Your task to perform on an android device: Do I have any events tomorrow? Image 0: 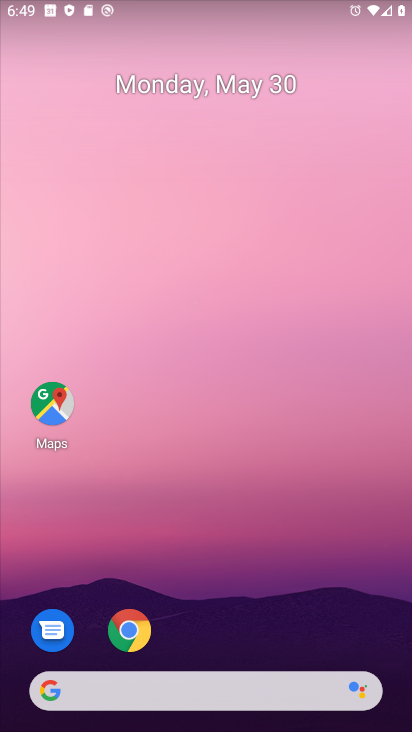
Step 0: drag from (361, 628) to (289, 2)
Your task to perform on an android device: Do I have any events tomorrow? Image 1: 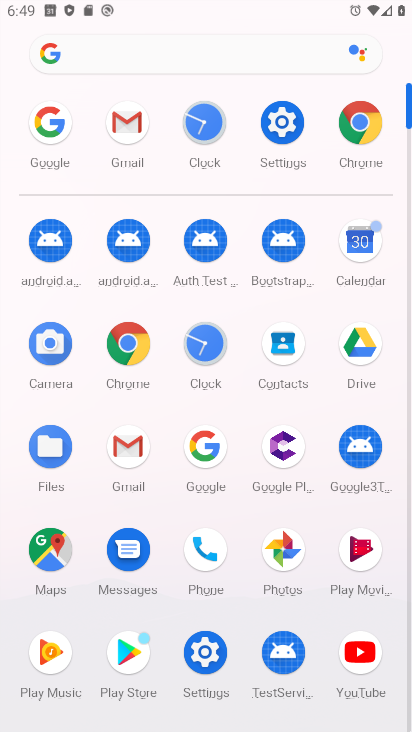
Step 1: click (355, 269)
Your task to perform on an android device: Do I have any events tomorrow? Image 2: 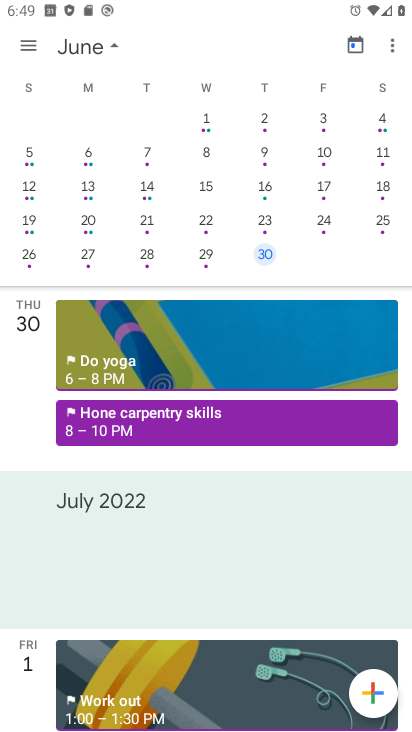
Step 2: drag from (77, 181) to (375, 169)
Your task to perform on an android device: Do I have any events tomorrow? Image 3: 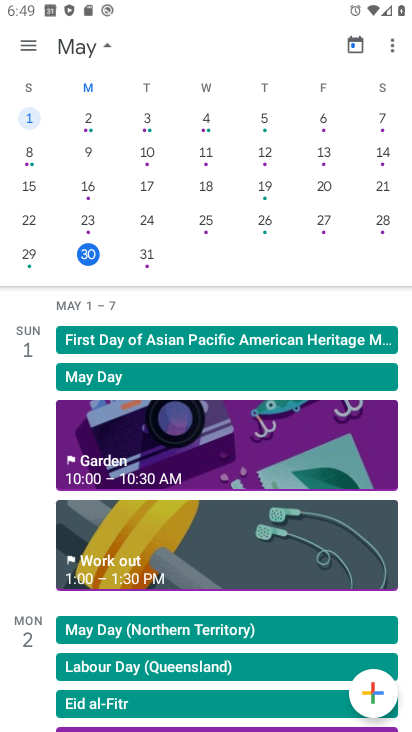
Step 3: drag from (324, 201) to (0, 103)
Your task to perform on an android device: Do I have any events tomorrow? Image 4: 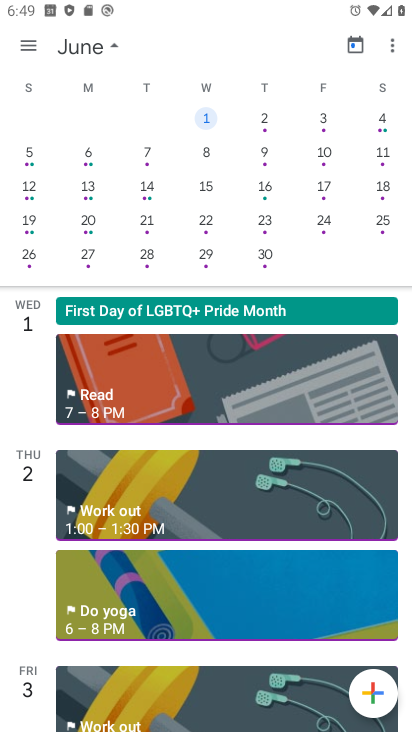
Step 4: click (187, 391)
Your task to perform on an android device: Do I have any events tomorrow? Image 5: 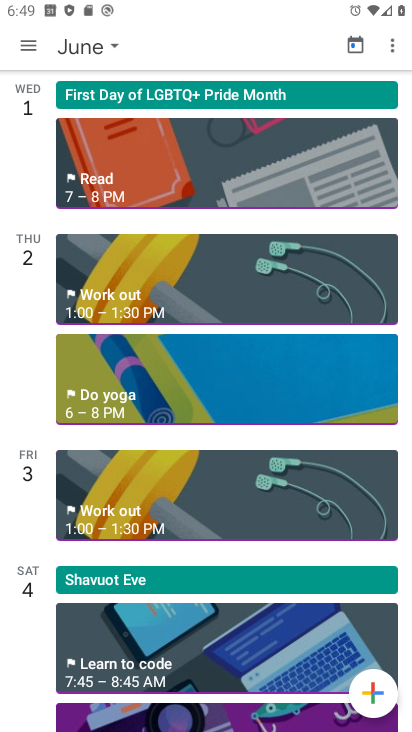
Step 5: click (182, 258)
Your task to perform on an android device: Do I have any events tomorrow? Image 6: 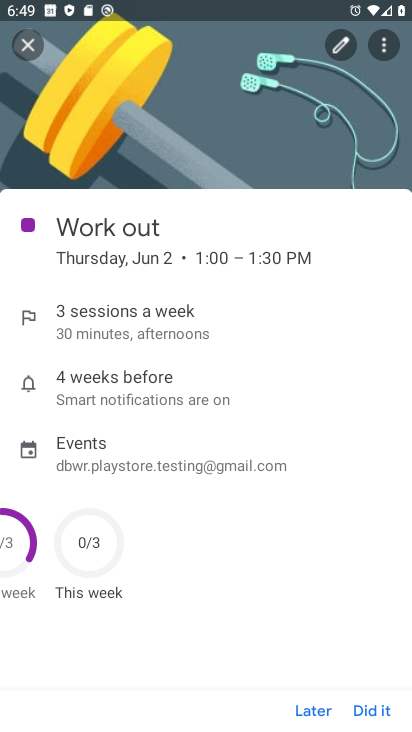
Step 6: task complete